Your task to perform on an android device: turn off notifications settings in the gmail app Image 0: 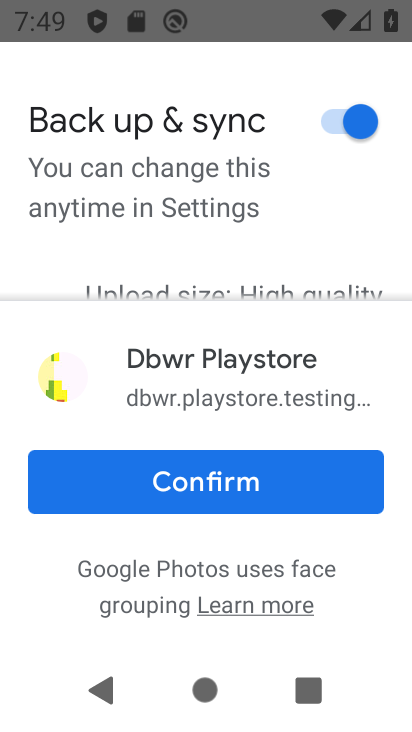
Step 0: press home button
Your task to perform on an android device: turn off notifications settings in the gmail app Image 1: 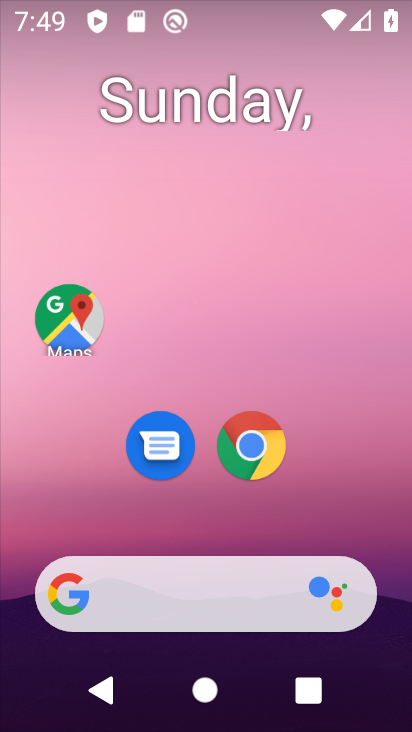
Step 1: drag from (210, 517) to (218, 89)
Your task to perform on an android device: turn off notifications settings in the gmail app Image 2: 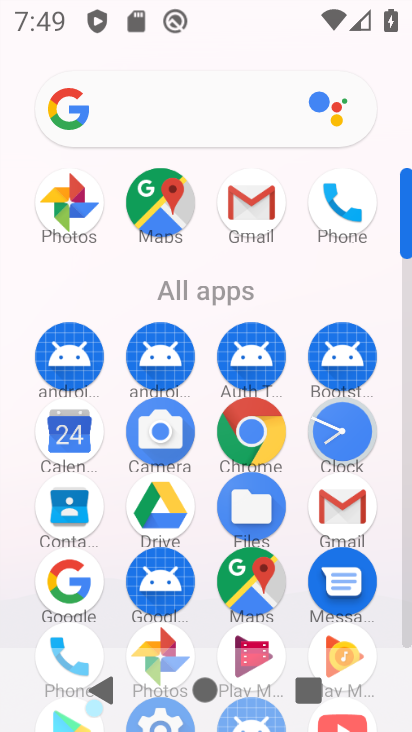
Step 2: click (240, 194)
Your task to perform on an android device: turn off notifications settings in the gmail app Image 3: 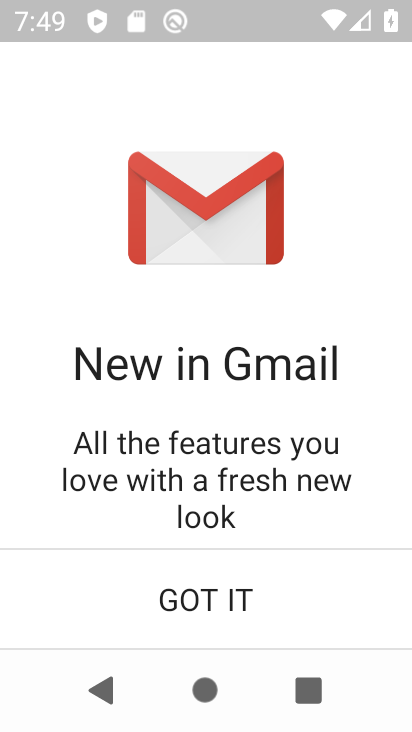
Step 3: click (212, 574)
Your task to perform on an android device: turn off notifications settings in the gmail app Image 4: 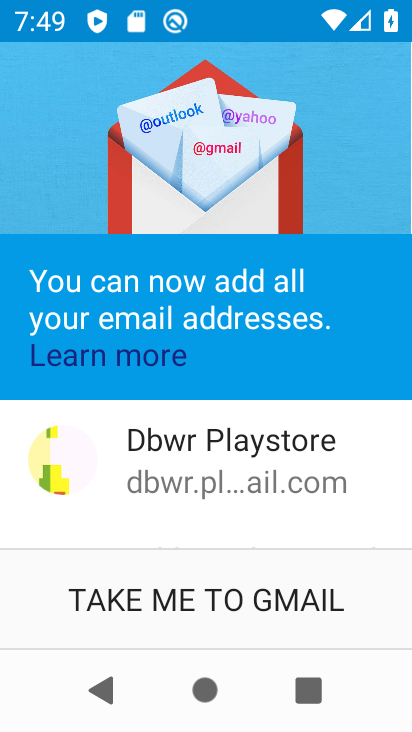
Step 4: click (231, 588)
Your task to perform on an android device: turn off notifications settings in the gmail app Image 5: 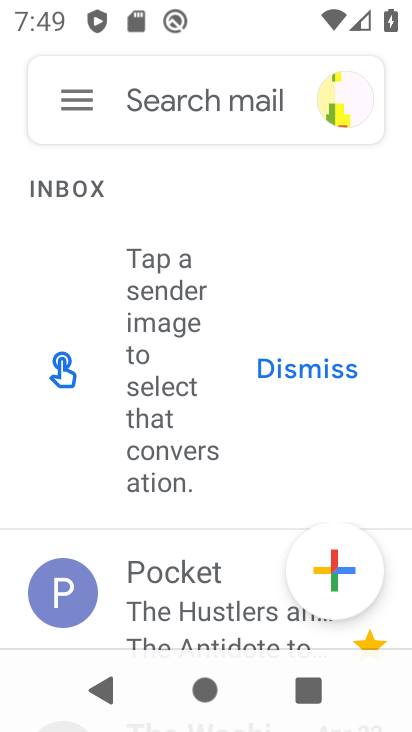
Step 5: click (70, 96)
Your task to perform on an android device: turn off notifications settings in the gmail app Image 6: 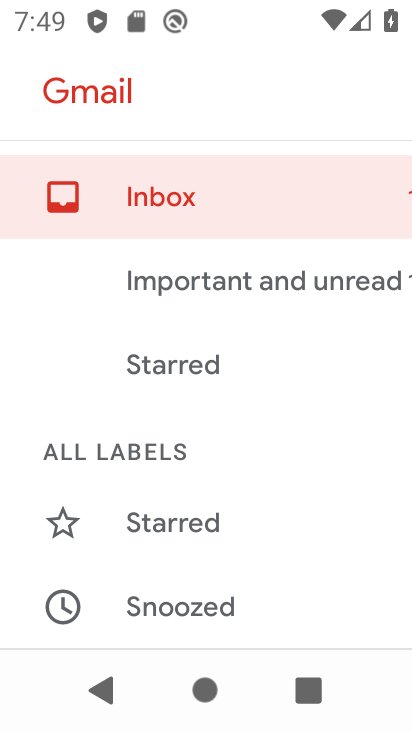
Step 6: drag from (231, 575) to (219, 133)
Your task to perform on an android device: turn off notifications settings in the gmail app Image 7: 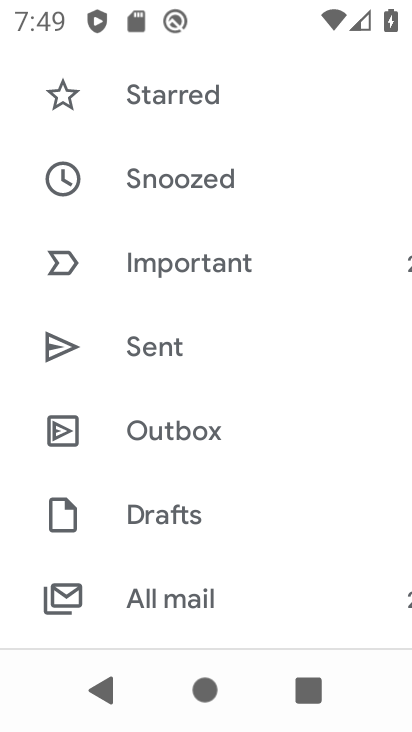
Step 7: drag from (169, 529) to (226, 213)
Your task to perform on an android device: turn off notifications settings in the gmail app Image 8: 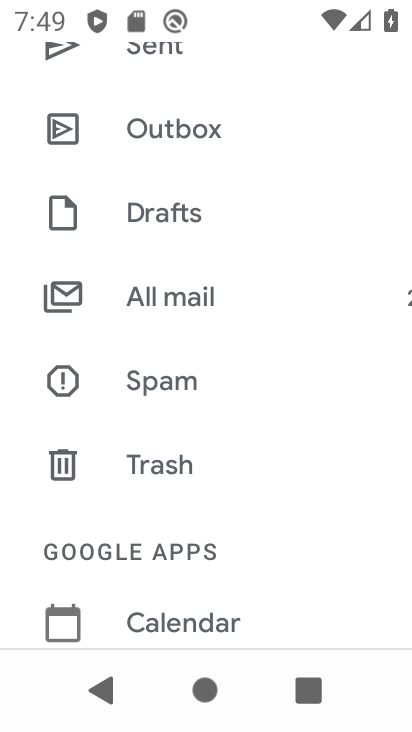
Step 8: drag from (176, 587) to (238, 339)
Your task to perform on an android device: turn off notifications settings in the gmail app Image 9: 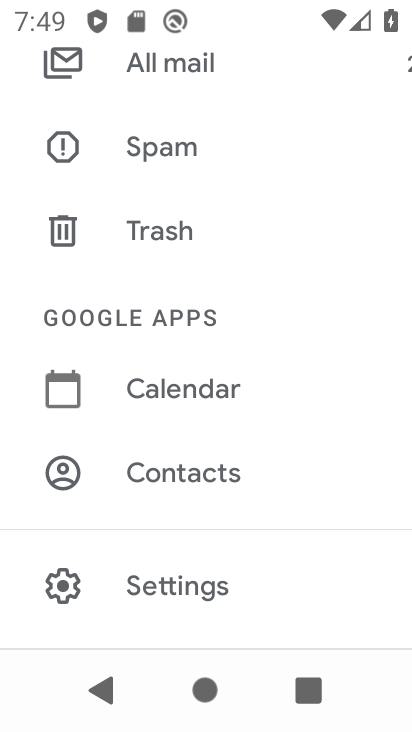
Step 9: click (166, 587)
Your task to perform on an android device: turn off notifications settings in the gmail app Image 10: 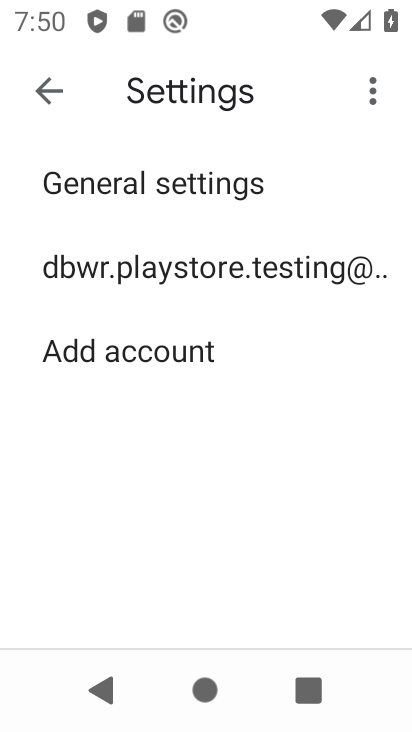
Step 10: click (172, 274)
Your task to perform on an android device: turn off notifications settings in the gmail app Image 11: 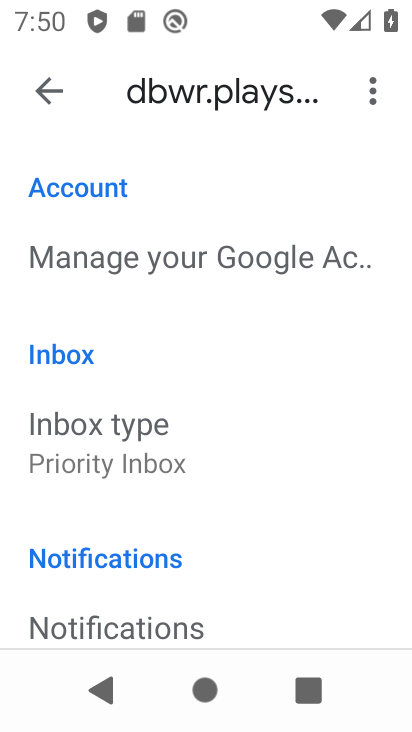
Step 11: drag from (208, 551) to (262, 268)
Your task to perform on an android device: turn off notifications settings in the gmail app Image 12: 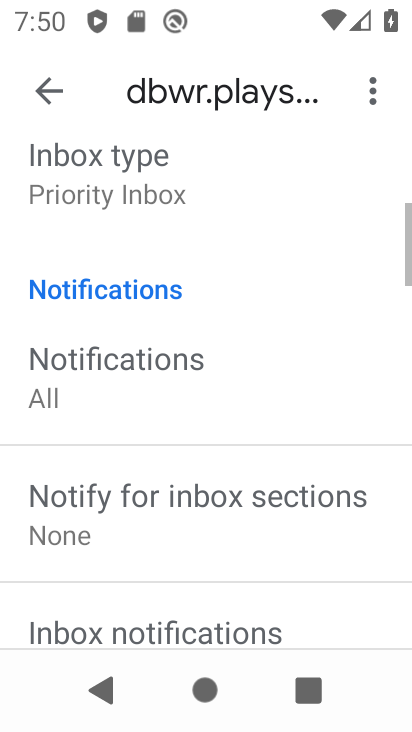
Step 12: drag from (268, 514) to (298, 310)
Your task to perform on an android device: turn off notifications settings in the gmail app Image 13: 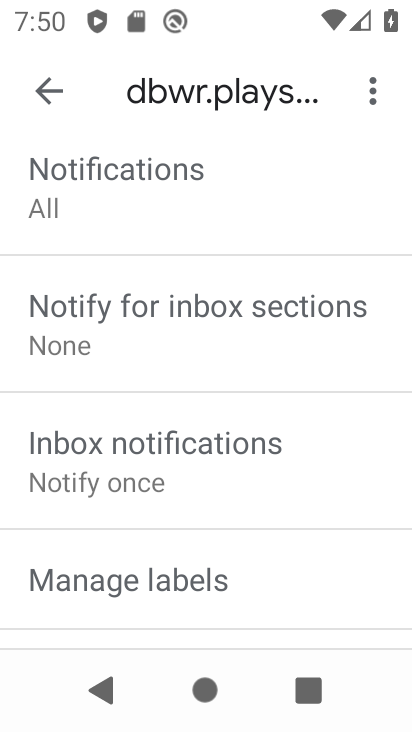
Step 13: drag from (246, 552) to (284, 375)
Your task to perform on an android device: turn off notifications settings in the gmail app Image 14: 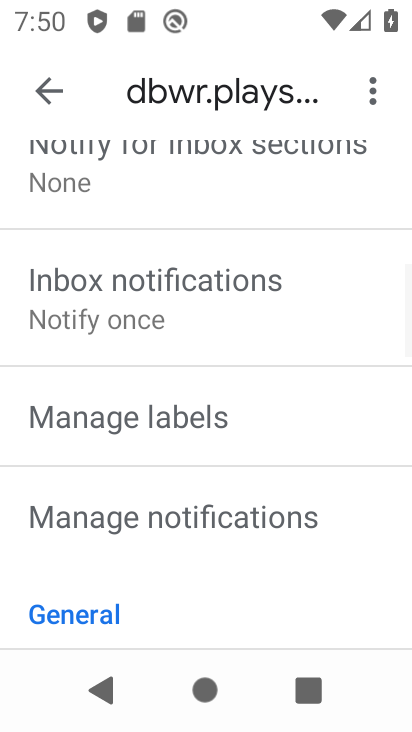
Step 14: click (259, 502)
Your task to perform on an android device: turn off notifications settings in the gmail app Image 15: 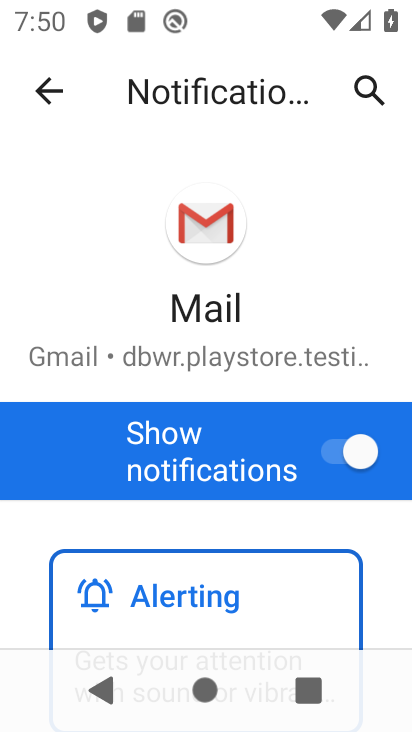
Step 15: click (327, 452)
Your task to perform on an android device: turn off notifications settings in the gmail app Image 16: 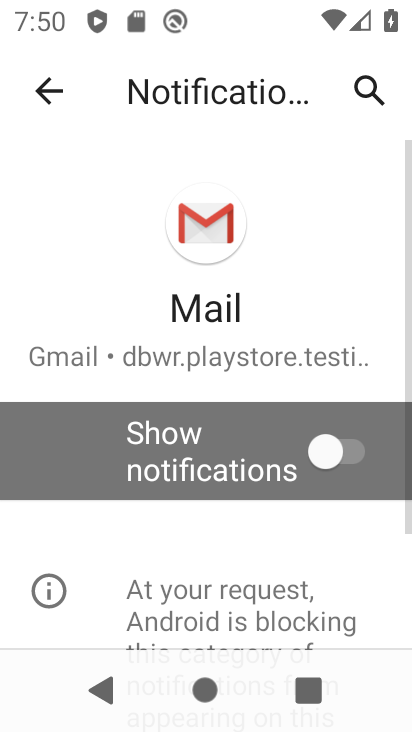
Step 16: task complete